Your task to perform on an android device: turn off data saver in the chrome app Image 0: 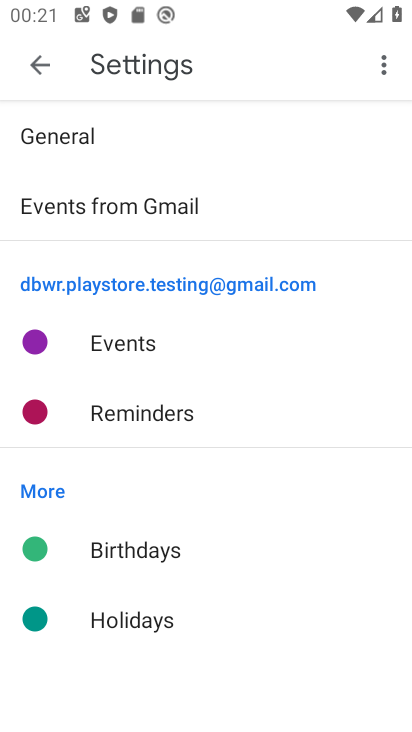
Step 0: press home button
Your task to perform on an android device: turn off data saver in the chrome app Image 1: 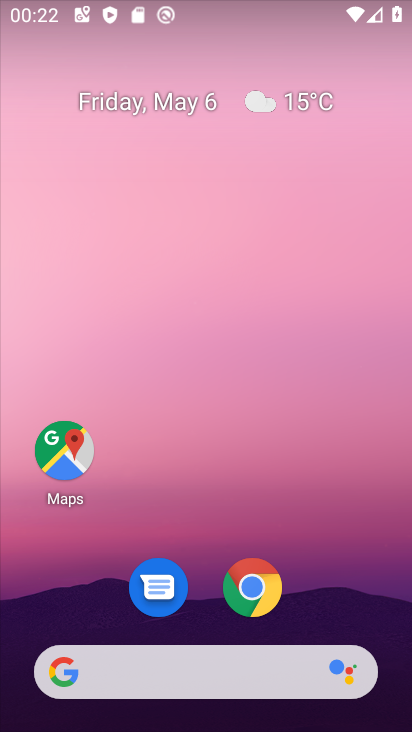
Step 1: click (253, 581)
Your task to perform on an android device: turn off data saver in the chrome app Image 2: 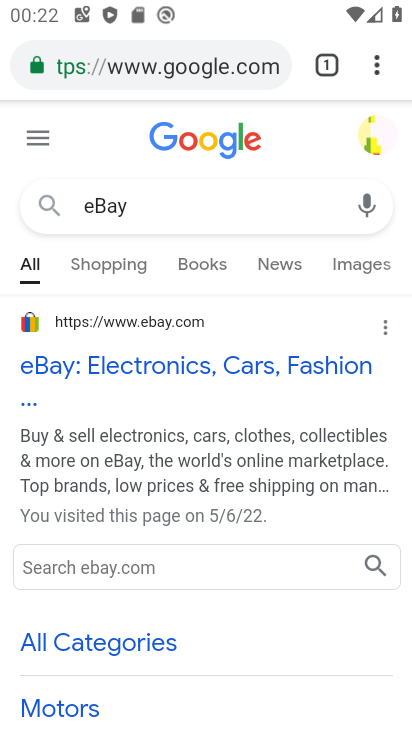
Step 2: click (376, 60)
Your task to perform on an android device: turn off data saver in the chrome app Image 3: 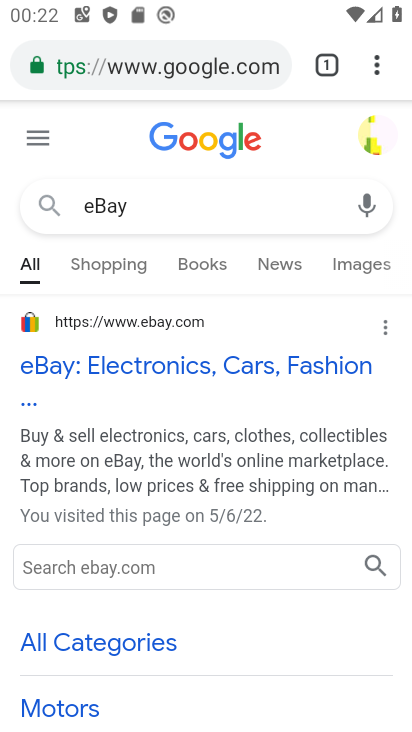
Step 3: click (376, 60)
Your task to perform on an android device: turn off data saver in the chrome app Image 4: 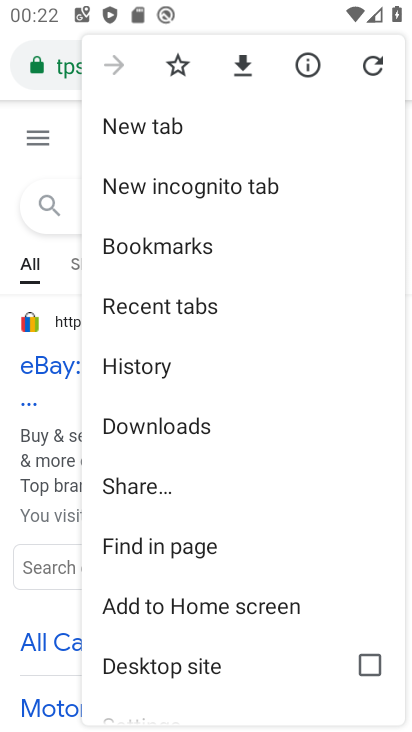
Step 4: drag from (349, 592) to (308, 278)
Your task to perform on an android device: turn off data saver in the chrome app Image 5: 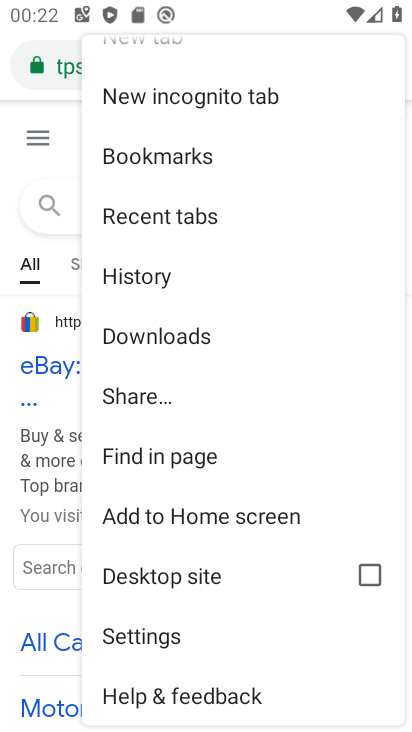
Step 5: click (159, 628)
Your task to perform on an android device: turn off data saver in the chrome app Image 6: 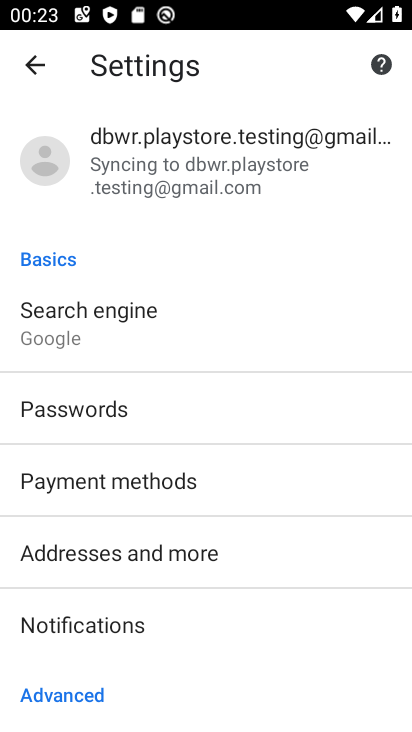
Step 6: drag from (253, 665) to (239, 363)
Your task to perform on an android device: turn off data saver in the chrome app Image 7: 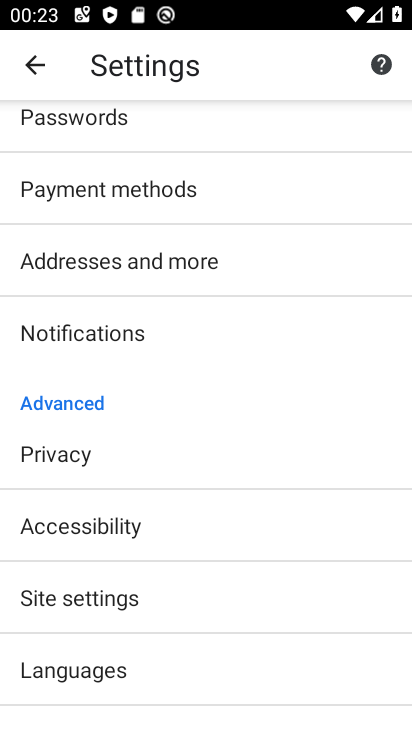
Step 7: drag from (269, 660) to (273, 421)
Your task to perform on an android device: turn off data saver in the chrome app Image 8: 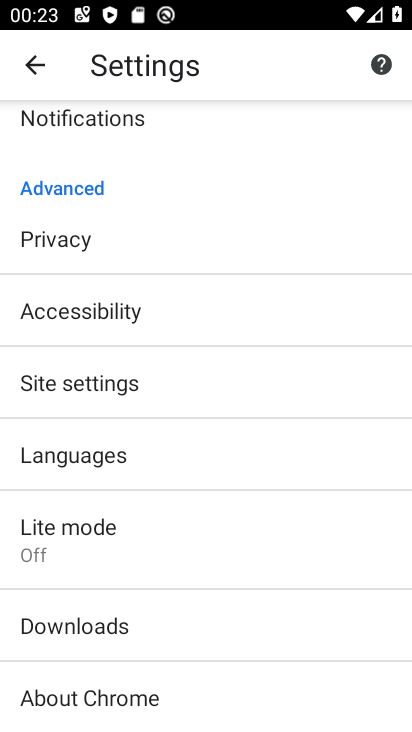
Step 8: click (93, 534)
Your task to perform on an android device: turn off data saver in the chrome app Image 9: 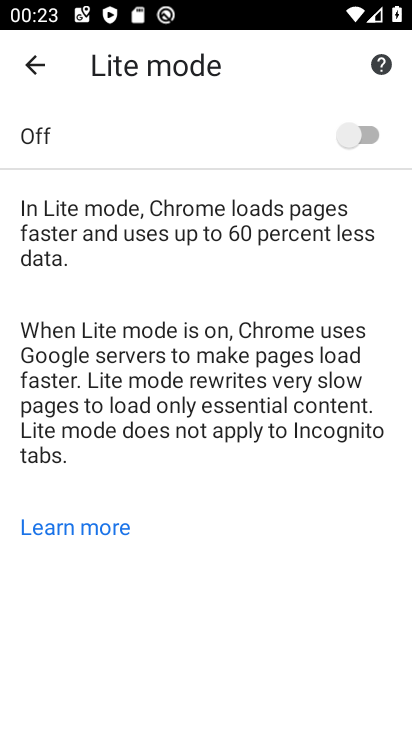
Step 9: task complete